Your task to perform on an android device: move an email to a new category in the gmail app Image 0: 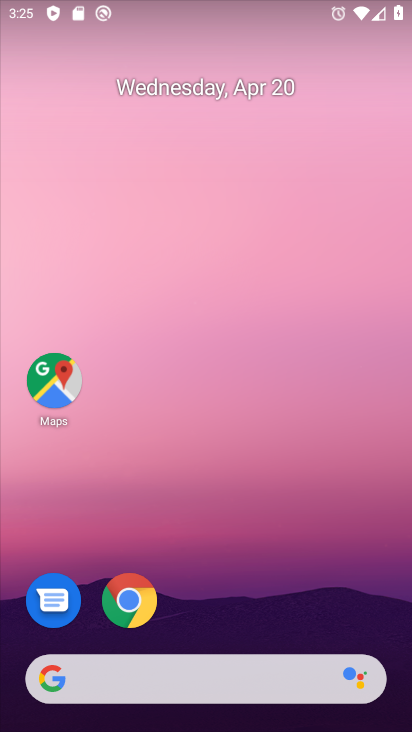
Step 0: drag from (314, 648) to (231, 140)
Your task to perform on an android device: move an email to a new category in the gmail app Image 1: 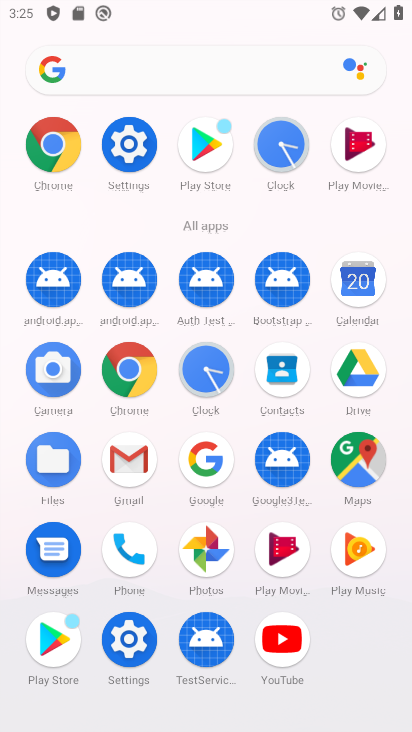
Step 1: click (125, 455)
Your task to perform on an android device: move an email to a new category in the gmail app Image 2: 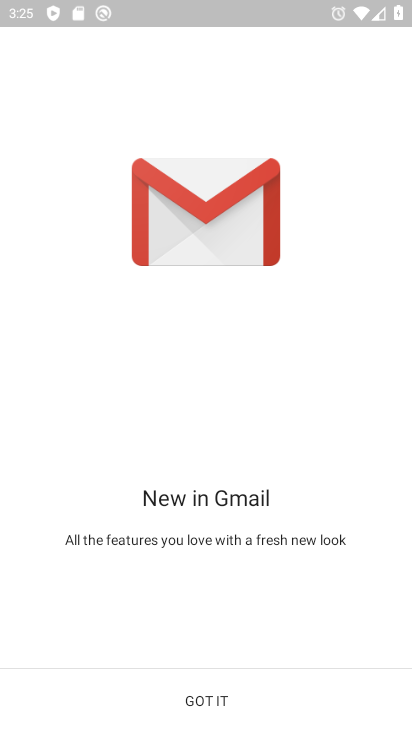
Step 2: click (237, 695)
Your task to perform on an android device: move an email to a new category in the gmail app Image 3: 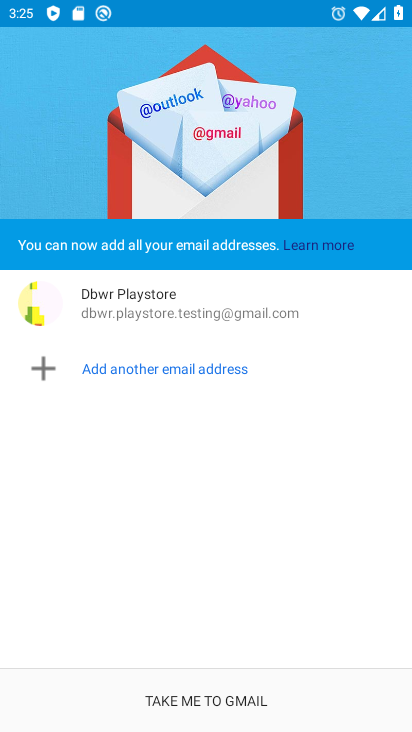
Step 3: click (243, 695)
Your task to perform on an android device: move an email to a new category in the gmail app Image 4: 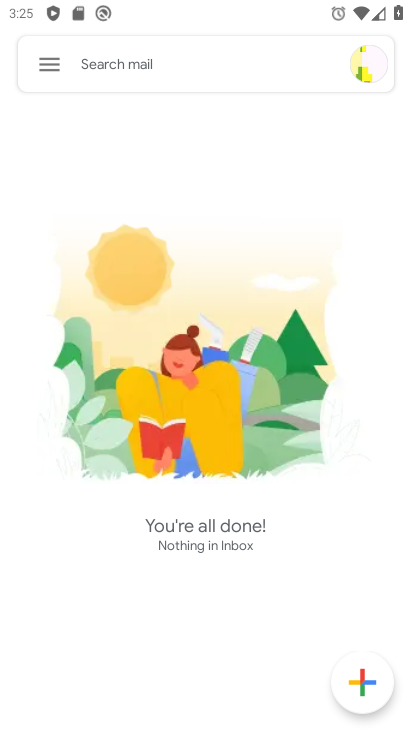
Step 4: click (57, 56)
Your task to perform on an android device: move an email to a new category in the gmail app Image 5: 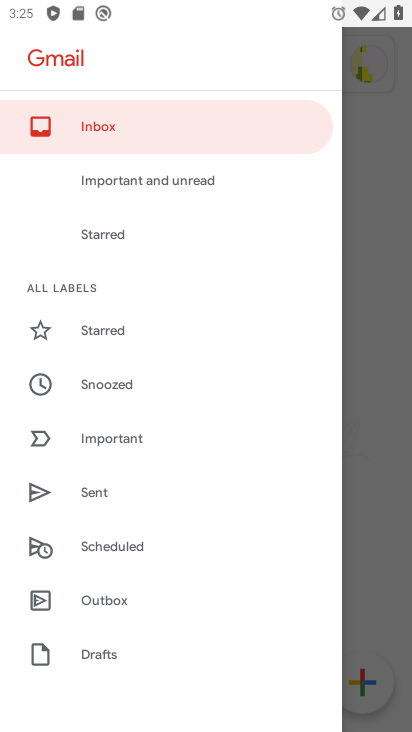
Step 5: drag from (118, 571) to (192, 232)
Your task to perform on an android device: move an email to a new category in the gmail app Image 6: 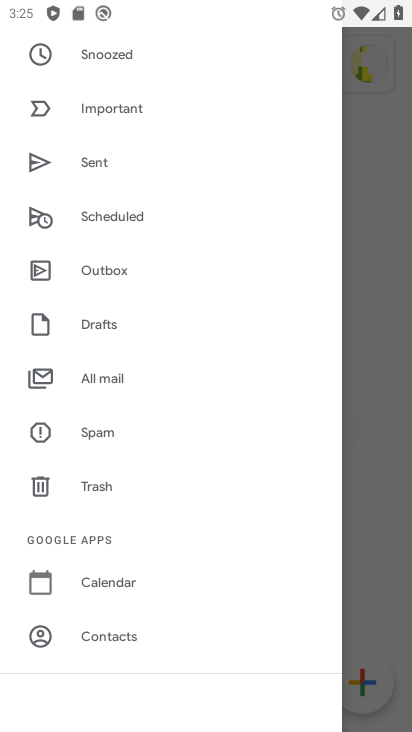
Step 6: click (125, 378)
Your task to perform on an android device: move an email to a new category in the gmail app Image 7: 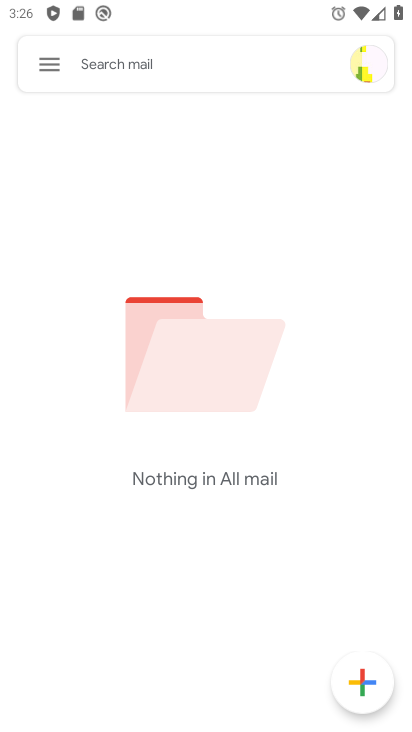
Step 7: task complete